Your task to perform on an android device: Open calendar and show me the fourth week of next month Image 0: 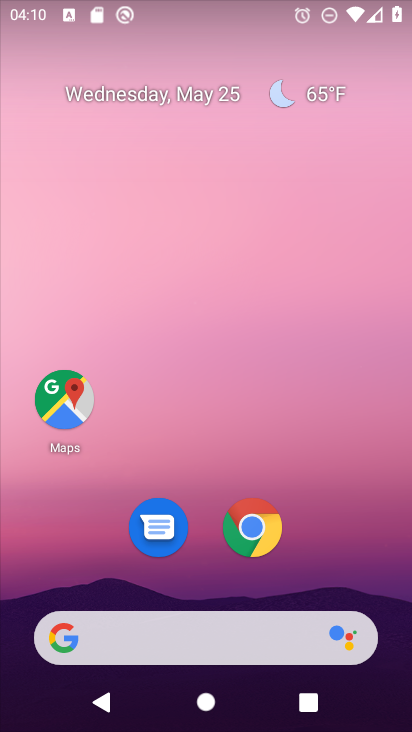
Step 0: drag from (263, 575) to (360, 0)
Your task to perform on an android device: Open calendar and show me the fourth week of next month Image 1: 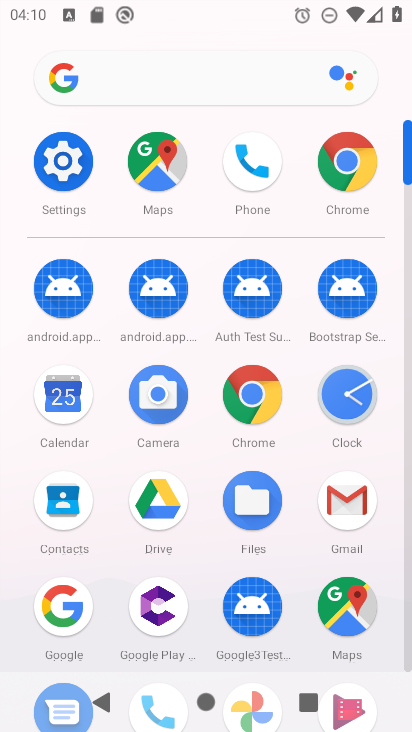
Step 1: click (79, 398)
Your task to perform on an android device: Open calendar and show me the fourth week of next month Image 2: 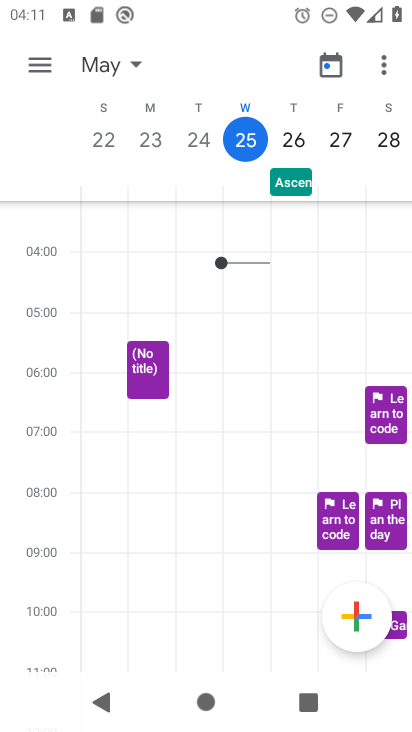
Step 2: click (128, 64)
Your task to perform on an android device: Open calendar and show me the fourth week of next month Image 3: 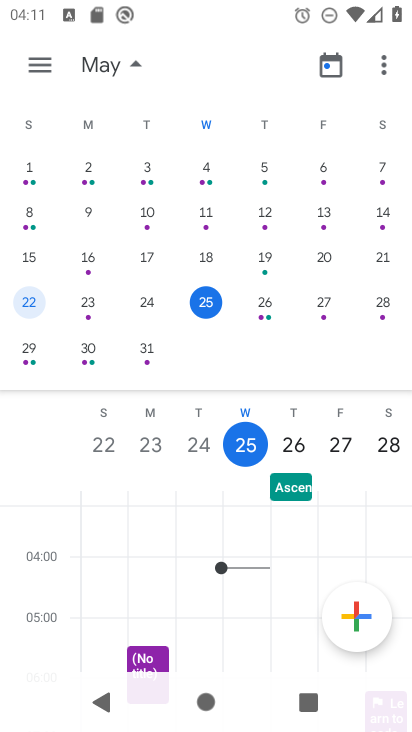
Step 3: drag from (362, 272) to (12, 264)
Your task to perform on an android device: Open calendar and show me the fourth week of next month Image 4: 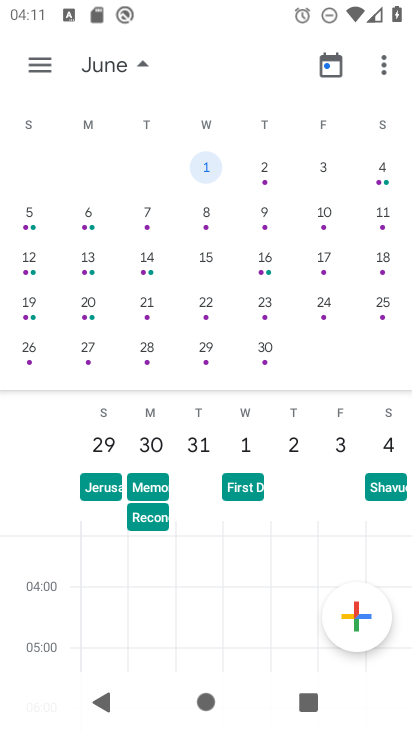
Step 4: click (270, 305)
Your task to perform on an android device: Open calendar and show me the fourth week of next month Image 5: 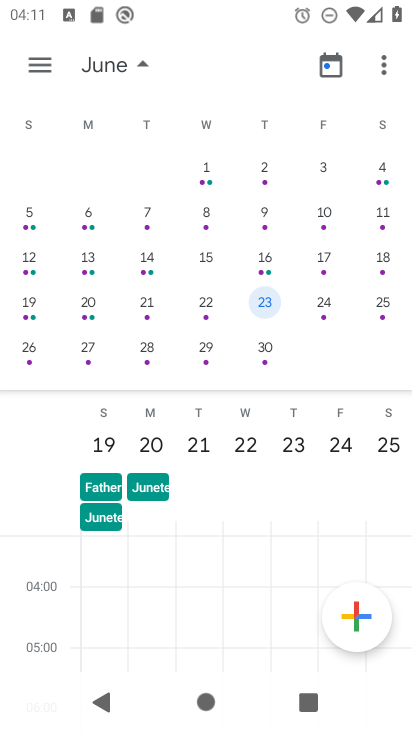
Step 5: task complete